Your task to perform on an android device: Open Yahoo.com Image 0: 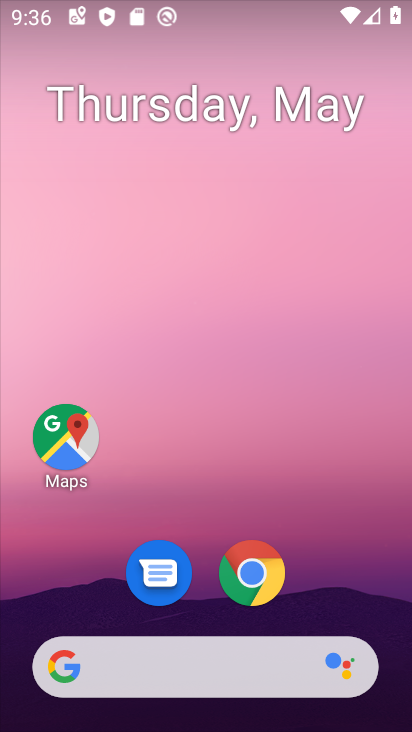
Step 0: click (260, 590)
Your task to perform on an android device: Open Yahoo.com Image 1: 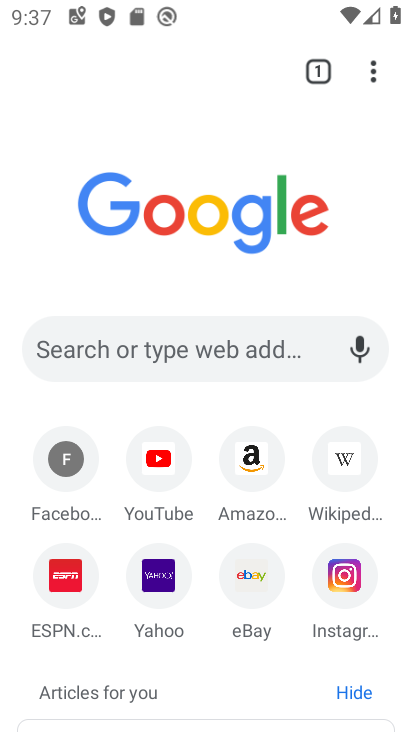
Step 1: click (165, 581)
Your task to perform on an android device: Open Yahoo.com Image 2: 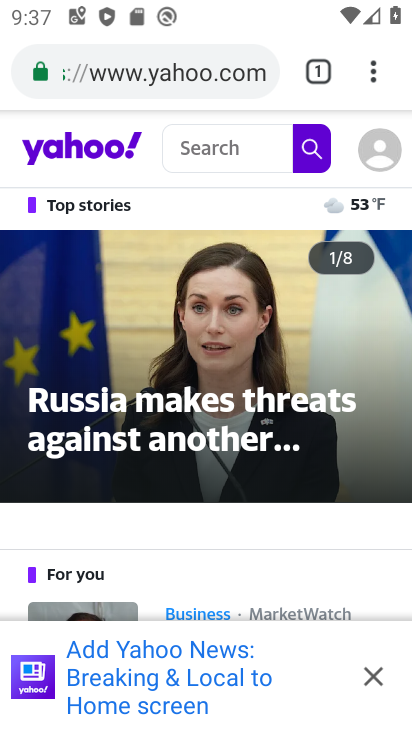
Step 2: task complete